Your task to perform on an android device: turn smart compose on in the gmail app Image 0: 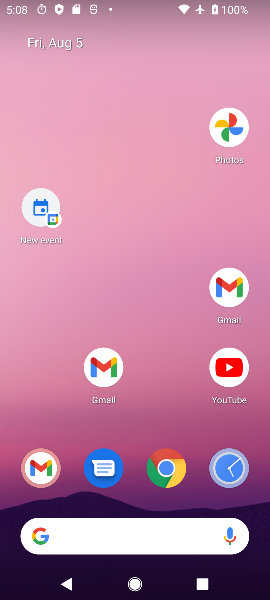
Step 0: press back button
Your task to perform on an android device: turn smart compose on in the gmail app Image 1: 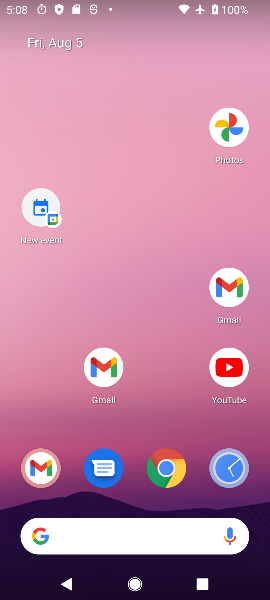
Step 1: press home button
Your task to perform on an android device: turn smart compose on in the gmail app Image 2: 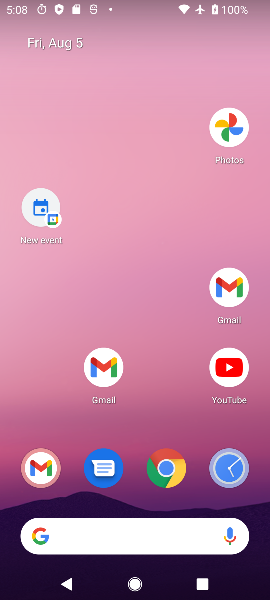
Step 2: drag from (189, 571) to (132, 113)
Your task to perform on an android device: turn smart compose on in the gmail app Image 3: 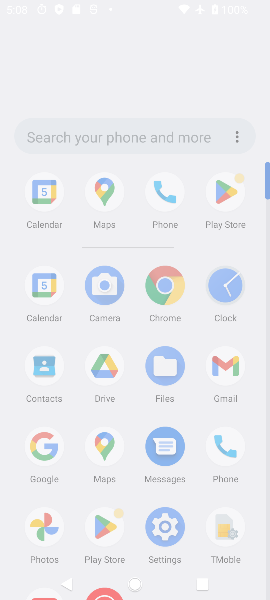
Step 3: drag from (128, 461) to (127, 15)
Your task to perform on an android device: turn smart compose on in the gmail app Image 4: 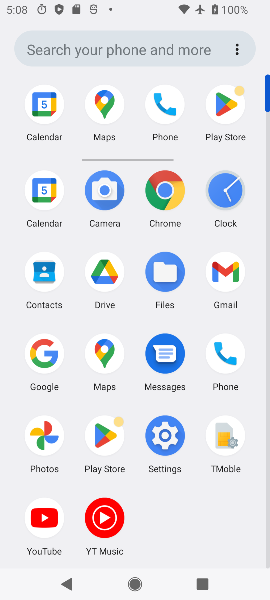
Step 4: drag from (142, 350) to (141, 72)
Your task to perform on an android device: turn smart compose on in the gmail app Image 5: 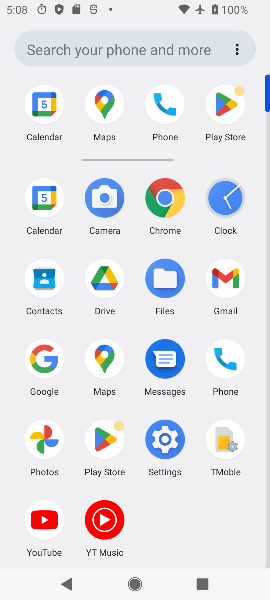
Step 5: click (223, 274)
Your task to perform on an android device: turn smart compose on in the gmail app Image 6: 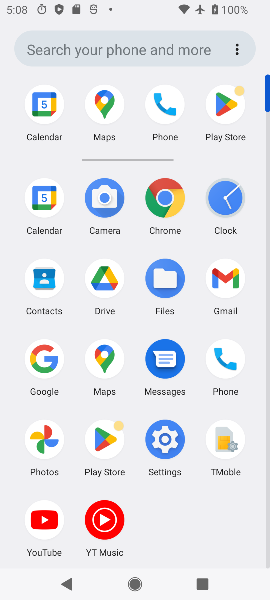
Step 6: click (223, 274)
Your task to perform on an android device: turn smart compose on in the gmail app Image 7: 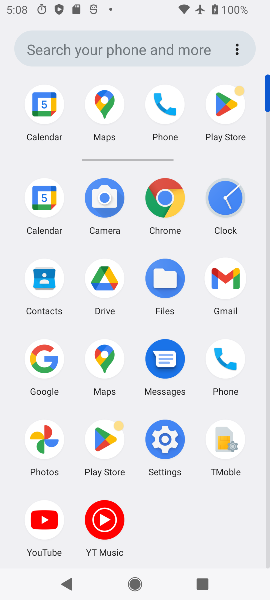
Step 7: click (223, 274)
Your task to perform on an android device: turn smart compose on in the gmail app Image 8: 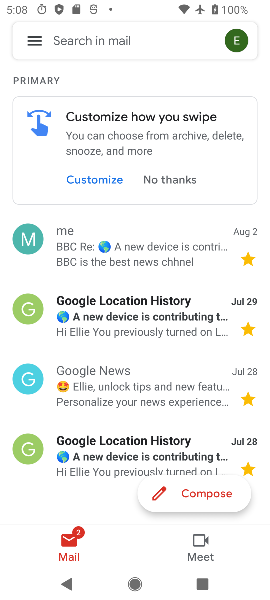
Step 8: click (223, 274)
Your task to perform on an android device: turn smart compose on in the gmail app Image 9: 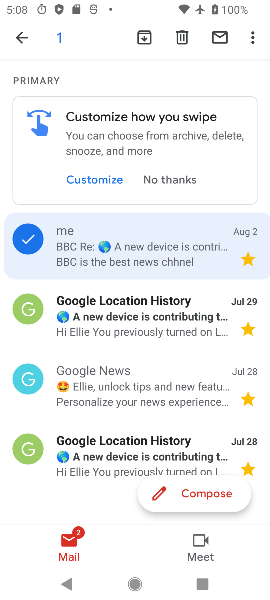
Step 9: click (18, 37)
Your task to perform on an android device: turn smart compose on in the gmail app Image 10: 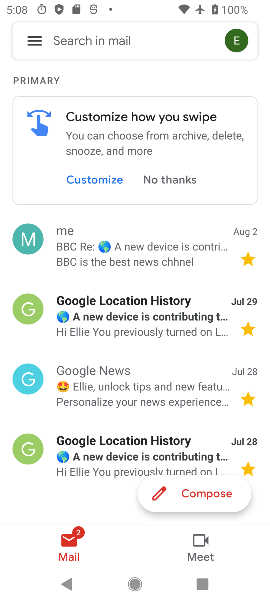
Step 10: click (30, 35)
Your task to perform on an android device: turn smart compose on in the gmail app Image 11: 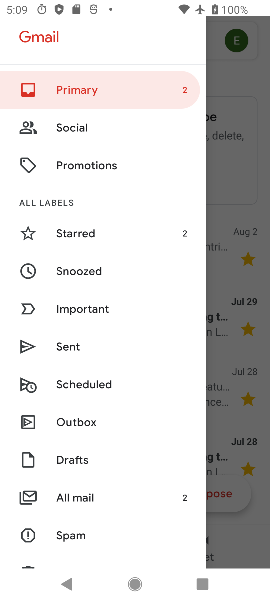
Step 11: click (68, 206)
Your task to perform on an android device: turn smart compose on in the gmail app Image 12: 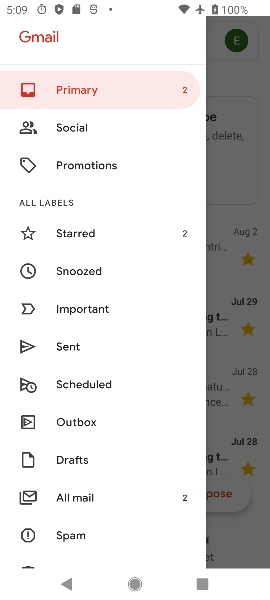
Step 12: drag from (74, 414) to (74, 155)
Your task to perform on an android device: turn smart compose on in the gmail app Image 13: 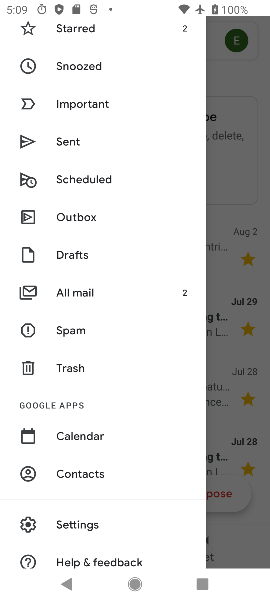
Step 13: drag from (96, 394) to (96, 163)
Your task to perform on an android device: turn smart compose on in the gmail app Image 14: 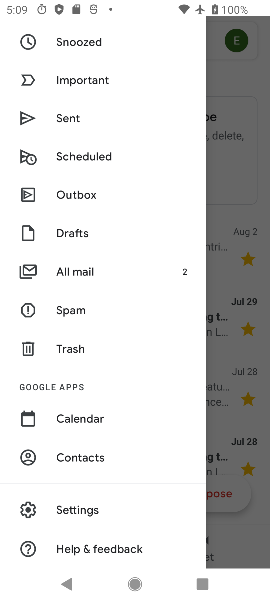
Step 14: drag from (73, 446) to (85, 108)
Your task to perform on an android device: turn smart compose on in the gmail app Image 15: 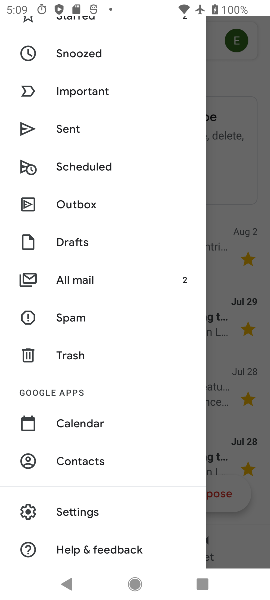
Step 15: click (77, 510)
Your task to perform on an android device: turn smart compose on in the gmail app Image 16: 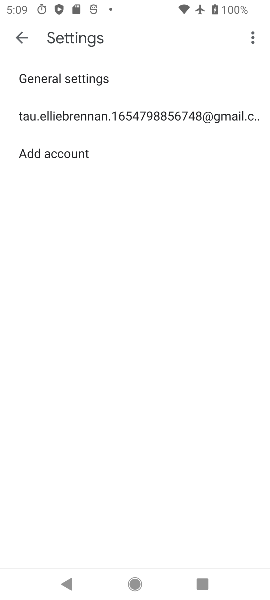
Step 16: click (104, 116)
Your task to perform on an android device: turn smart compose on in the gmail app Image 17: 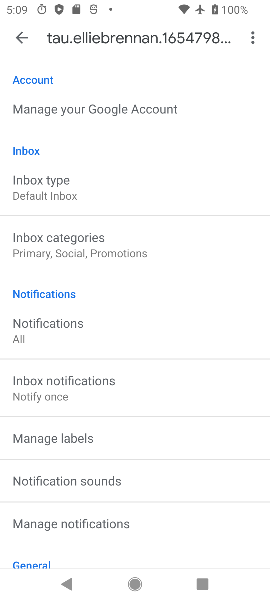
Step 17: task complete